Your task to perform on an android device: Turn off the flashlight Image 0: 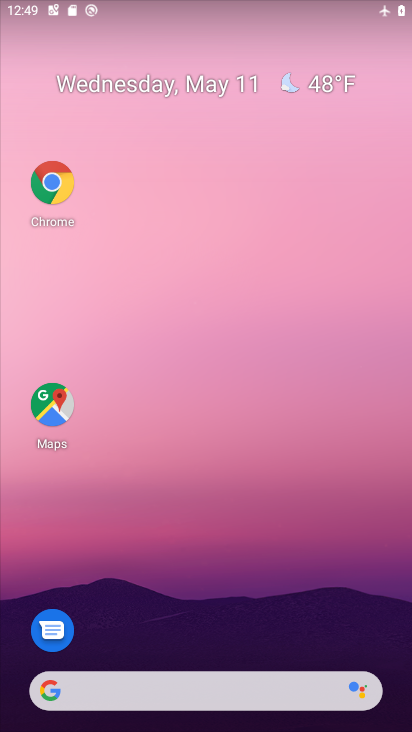
Step 0: drag from (213, 653) to (139, 0)
Your task to perform on an android device: Turn off the flashlight Image 1: 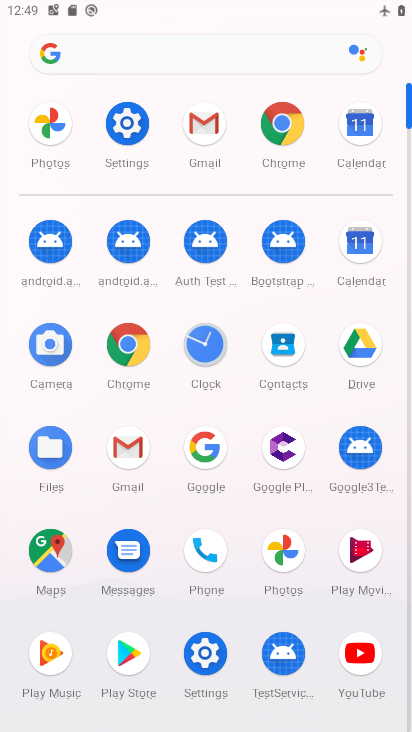
Step 1: click (140, 116)
Your task to perform on an android device: Turn off the flashlight Image 2: 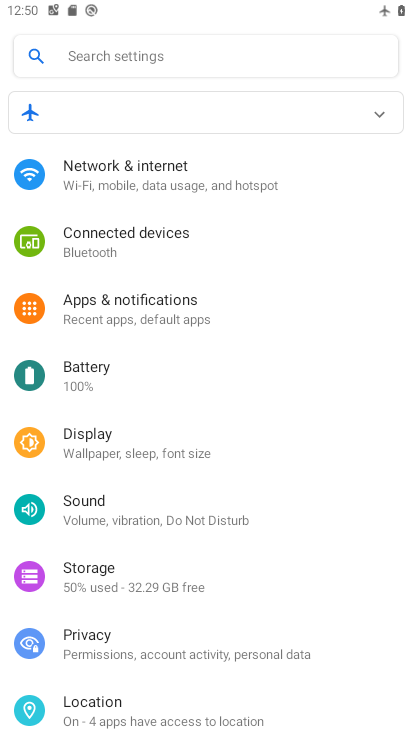
Step 2: task complete